Your task to perform on an android device: Open privacy settings Image 0: 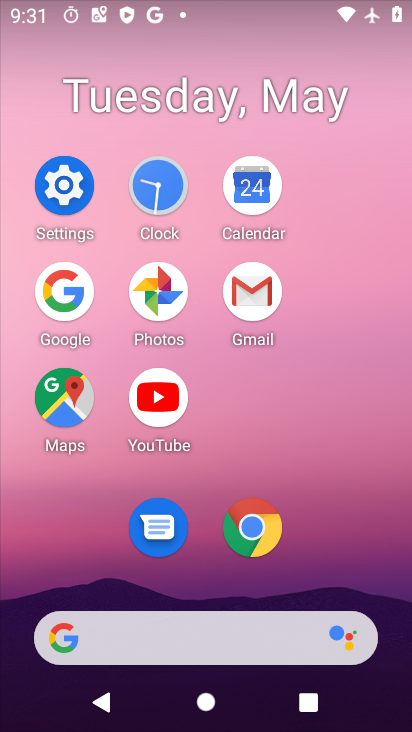
Step 0: click (89, 183)
Your task to perform on an android device: Open privacy settings Image 1: 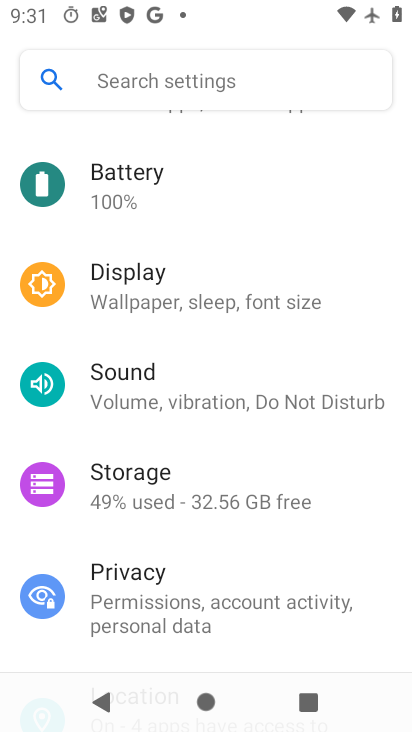
Step 1: click (211, 580)
Your task to perform on an android device: Open privacy settings Image 2: 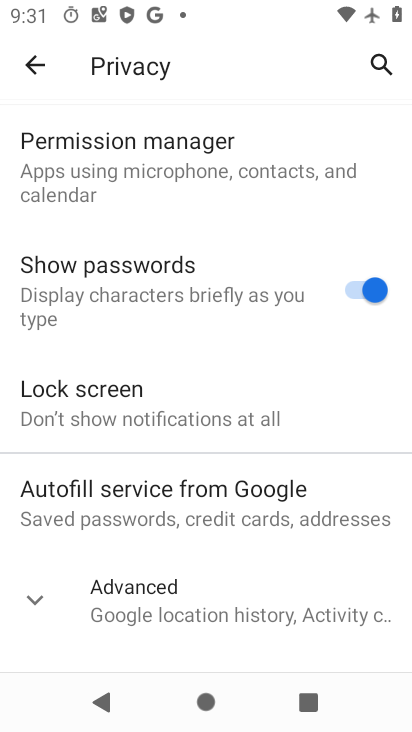
Step 2: task complete